Your task to perform on an android device: open a new tab in the chrome app Image 0: 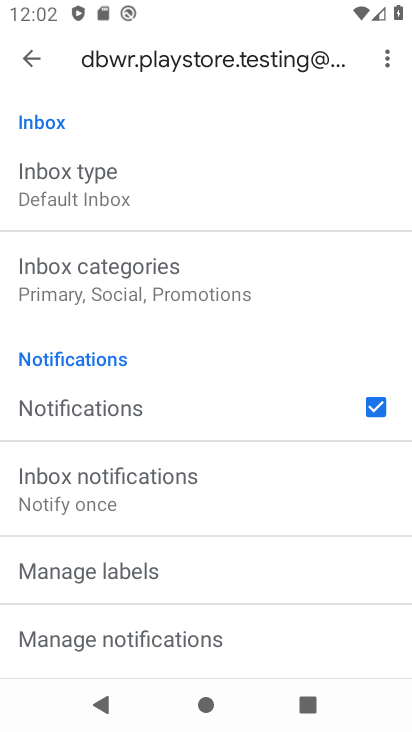
Step 0: press home button
Your task to perform on an android device: open a new tab in the chrome app Image 1: 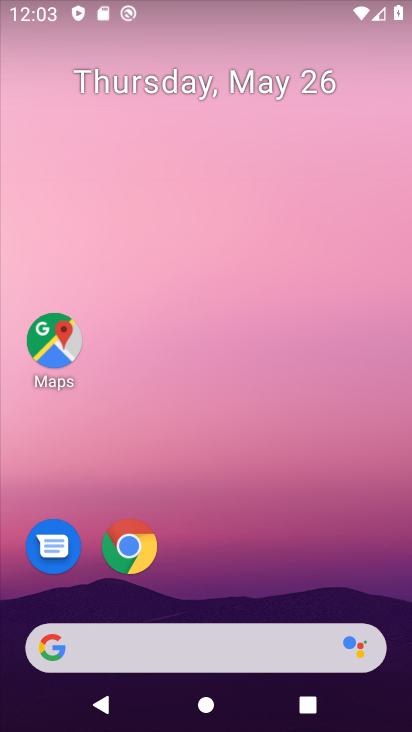
Step 1: drag from (390, 577) to (389, 354)
Your task to perform on an android device: open a new tab in the chrome app Image 2: 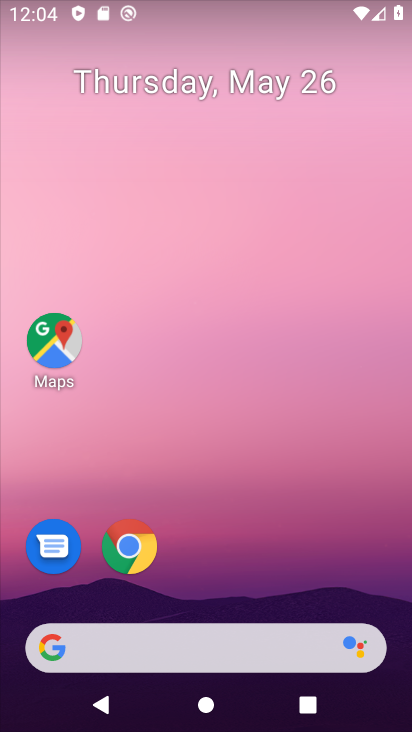
Step 2: click (124, 557)
Your task to perform on an android device: open a new tab in the chrome app Image 3: 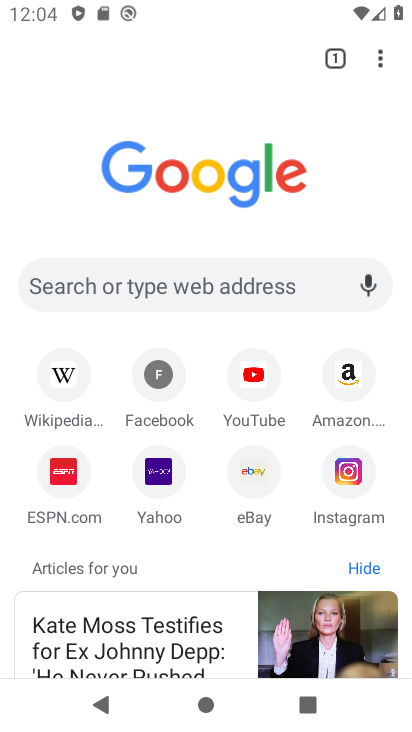
Step 3: click (381, 50)
Your task to perform on an android device: open a new tab in the chrome app Image 4: 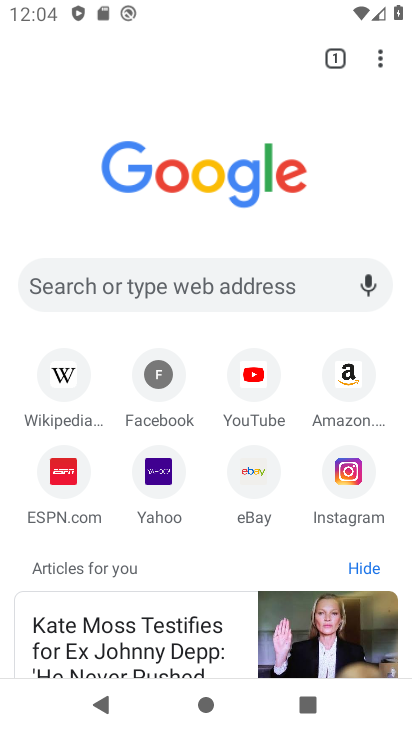
Step 4: click (381, 50)
Your task to perform on an android device: open a new tab in the chrome app Image 5: 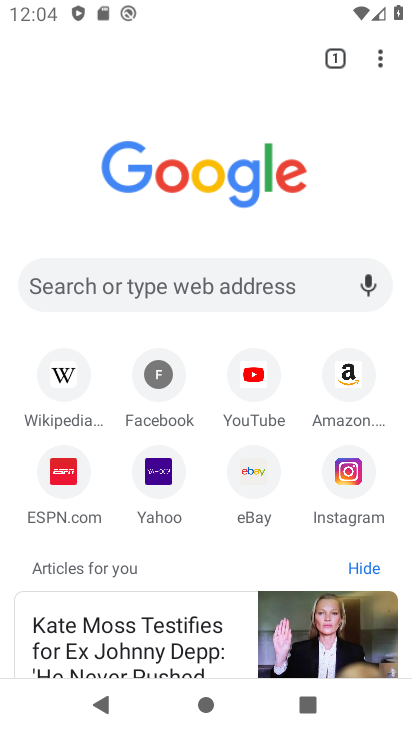
Step 5: click (379, 58)
Your task to perform on an android device: open a new tab in the chrome app Image 6: 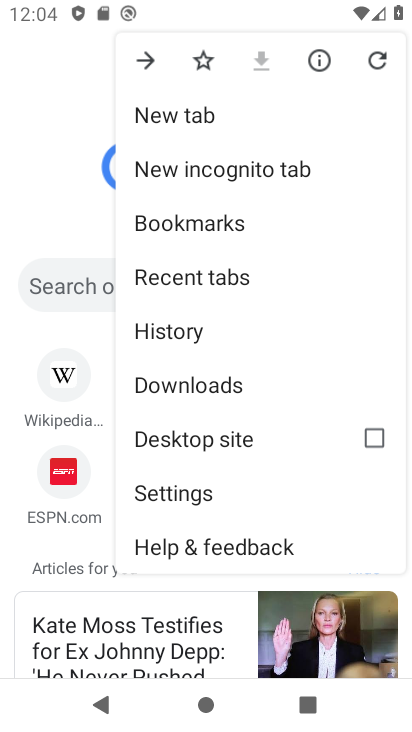
Step 6: click (183, 121)
Your task to perform on an android device: open a new tab in the chrome app Image 7: 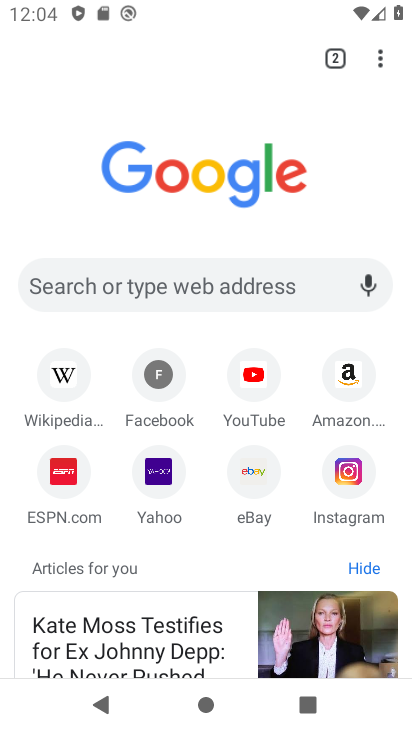
Step 7: task complete